Your task to perform on an android device: set default search engine in the chrome app Image 0: 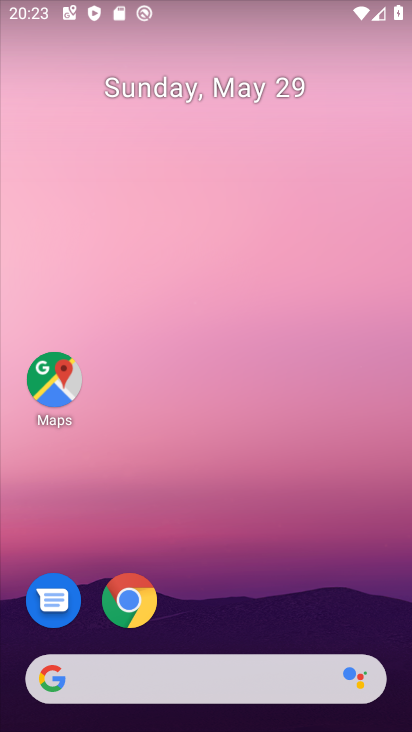
Step 0: drag from (288, 370) to (290, 165)
Your task to perform on an android device: set default search engine in the chrome app Image 1: 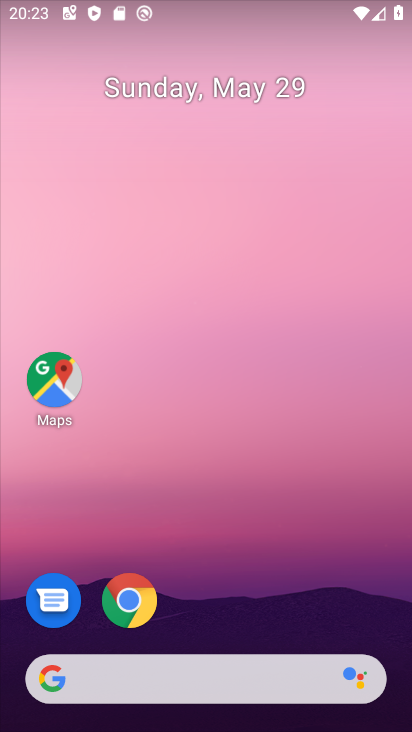
Step 1: drag from (298, 543) to (292, 213)
Your task to perform on an android device: set default search engine in the chrome app Image 2: 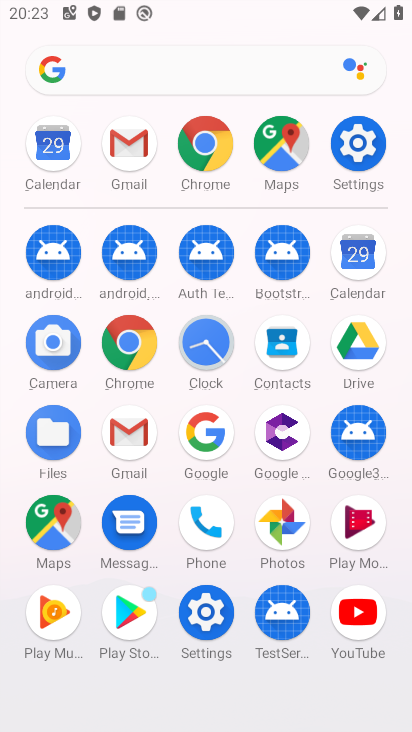
Step 2: click (209, 158)
Your task to perform on an android device: set default search engine in the chrome app Image 3: 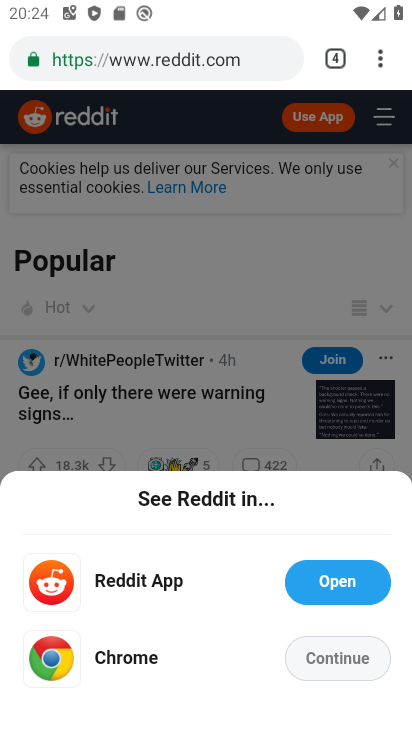
Step 3: drag from (376, 71) to (218, 639)
Your task to perform on an android device: set default search engine in the chrome app Image 4: 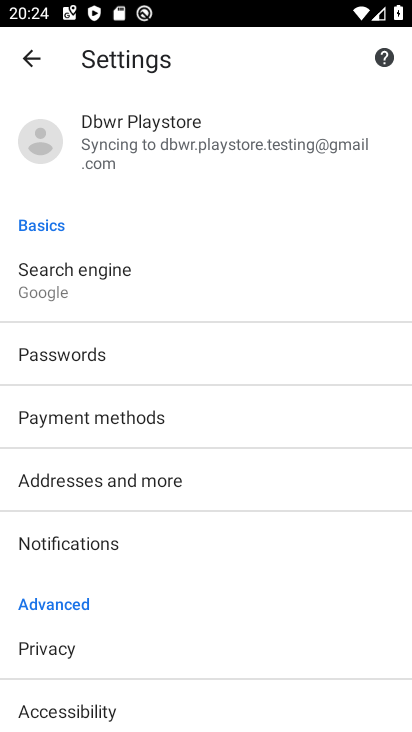
Step 4: click (153, 288)
Your task to perform on an android device: set default search engine in the chrome app Image 5: 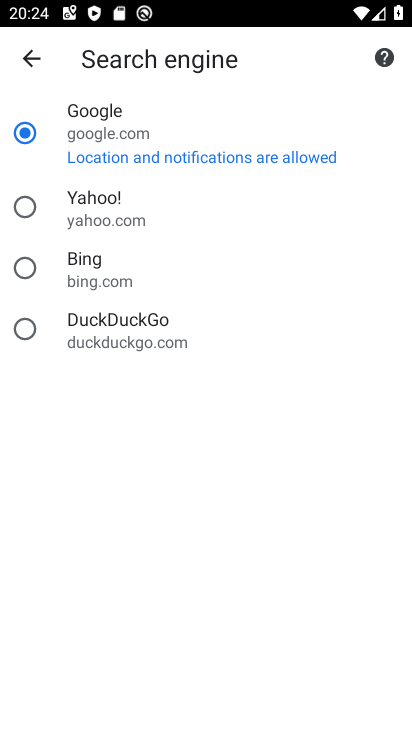
Step 5: click (125, 222)
Your task to perform on an android device: set default search engine in the chrome app Image 6: 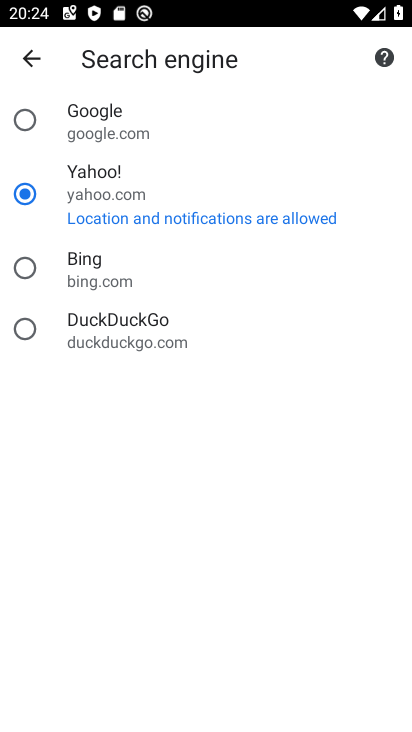
Step 6: task complete